Your task to perform on an android device: Check the news Image 0: 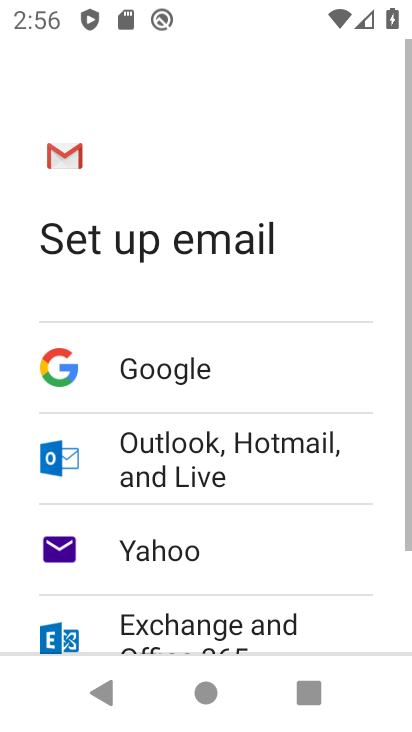
Step 0: press home button
Your task to perform on an android device: Check the news Image 1: 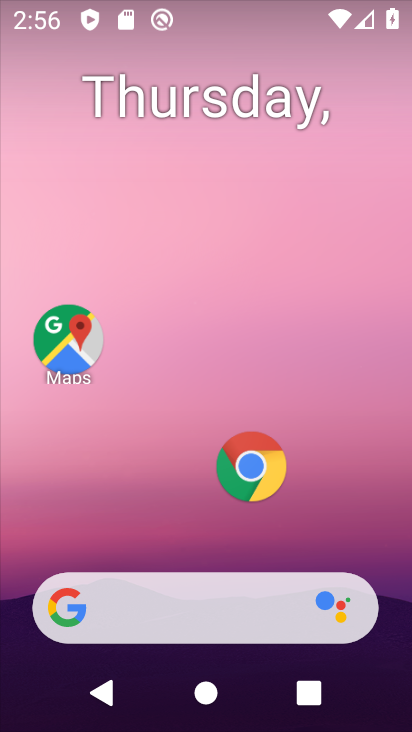
Step 1: drag from (207, 543) to (204, 211)
Your task to perform on an android device: Check the news Image 2: 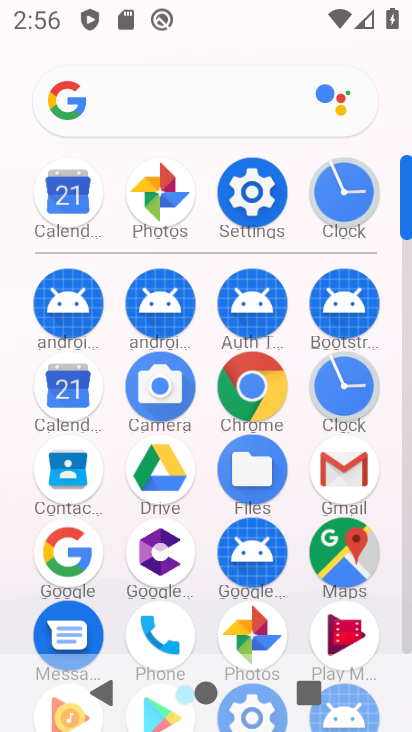
Step 2: click (77, 542)
Your task to perform on an android device: Check the news Image 3: 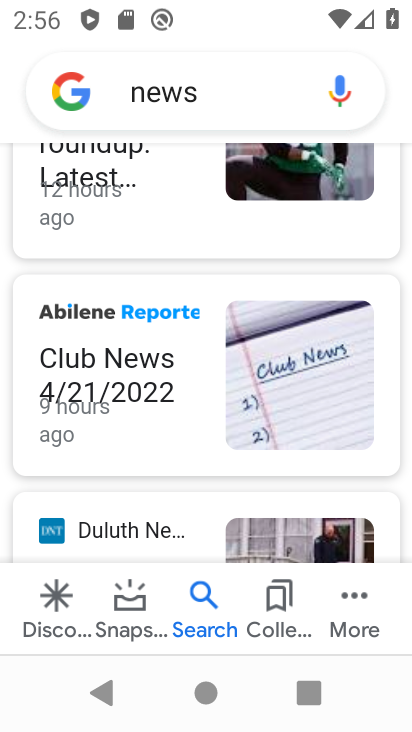
Step 3: task complete